Your task to perform on an android device: Add "logitech g903" to the cart on bestbuy.com Image 0: 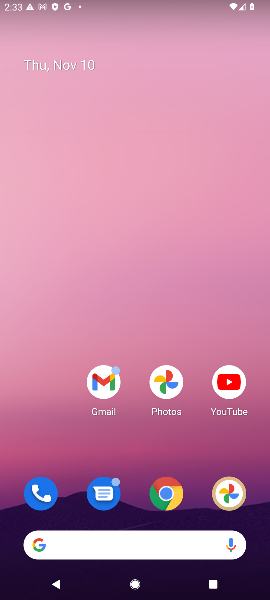
Step 0: drag from (95, 573) to (66, 135)
Your task to perform on an android device: Add "logitech g903" to the cart on bestbuy.com Image 1: 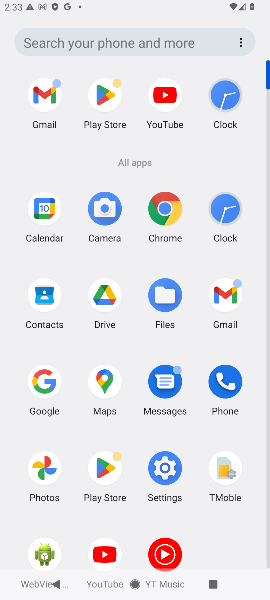
Step 1: click (41, 375)
Your task to perform on an android device: Add "logitech g903" to the cart on bestbuy.com Image 2: 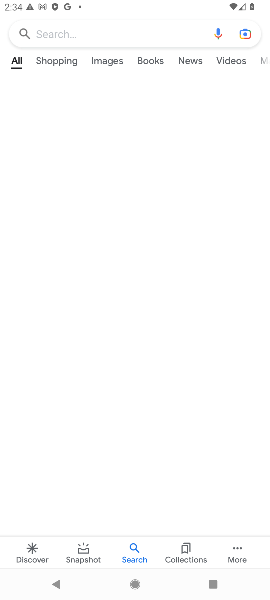
Step 2: click (140, 24)
Your task to perform on an android device: Add "logitech g903" to the cart on bestbuy.com Image 3: 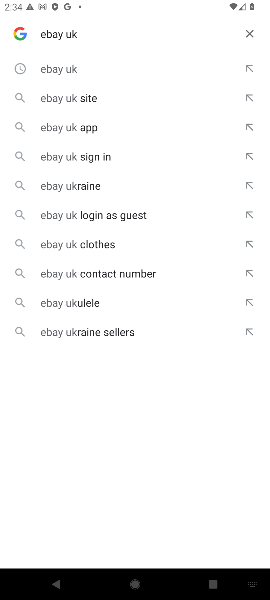
Step 3: type "bestbuy "
Your task to perform on an android device: Add "logitech g903" to the cart on bestbuy.com Image 4: 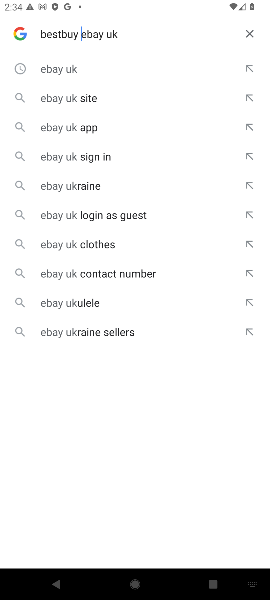
Step 4: click (257, 40)
Your task to perform on an android device: Add "logitech g903" to the cart on bestbuy.com Image 5: 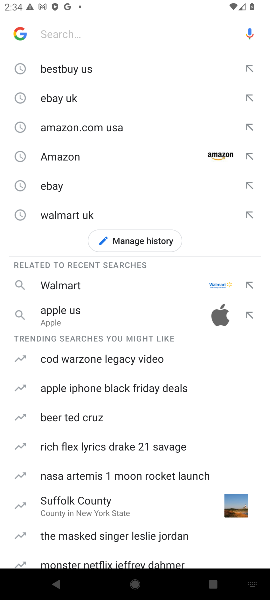
Step 5: click (94, 32)
Your task to perform on an android device: Add "logitech g903" to the cart on bestbuy.com Image 6: 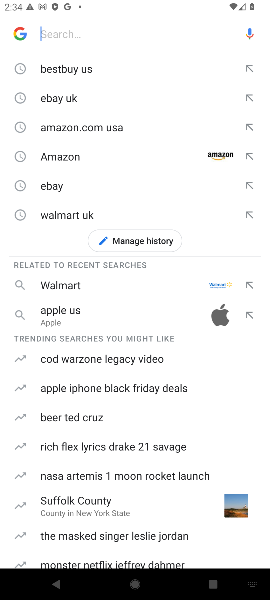
Step 6: type "bestbuy "
Your task to perform on an android device: Add "logitech g903" to the cart on bestbuy.com Image 7: 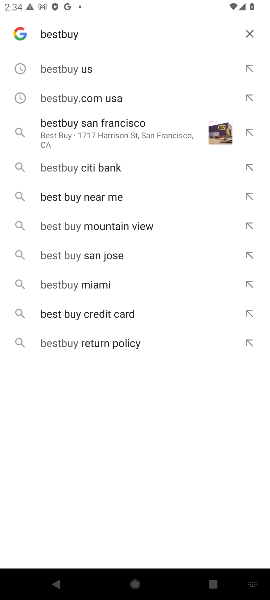
Step 7: click (68, 79)
Your task to perform on an android device: Add "logitech g903" to the cart on bestbuy.com Image 8: 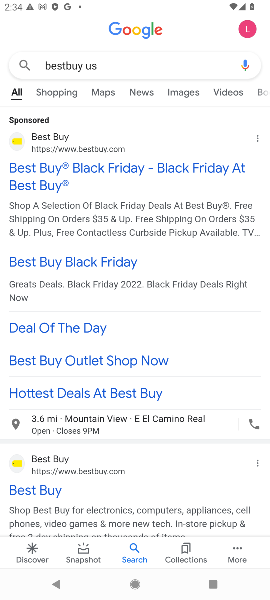
Step 8: click (12, 142)
Your task to perform on an android device: Add "logitech g903" to the cart on bestbuy.com Image 9: 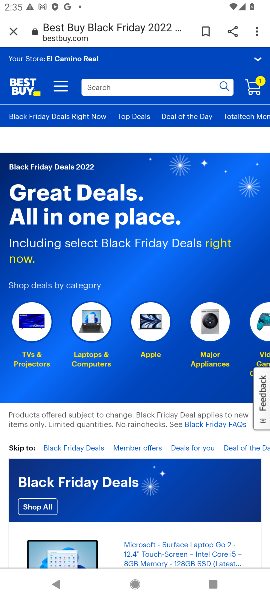
Step 9: click (107, 84)
Your task to perform on an android device: Add "logitech g903" to the cart on bestbuy.com Image 10: 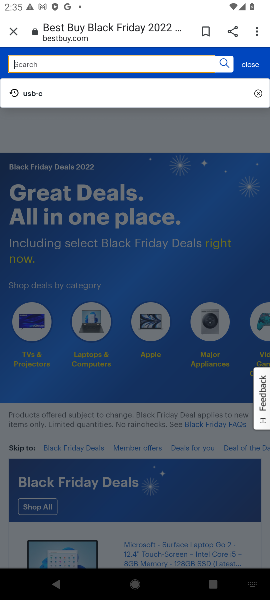
Step 10: click (107, 84)
Your task to perform on an android device: Add "logitech g903" to the cart on bestbuy.com Image 11: 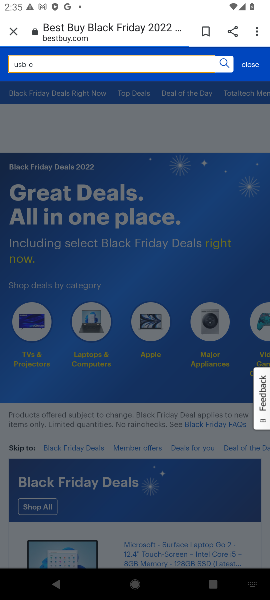
Step 11: click (65, 56)
Your task to perform on an android device: Add "logitech g903" to the cart on bestbuy.com Image 12: 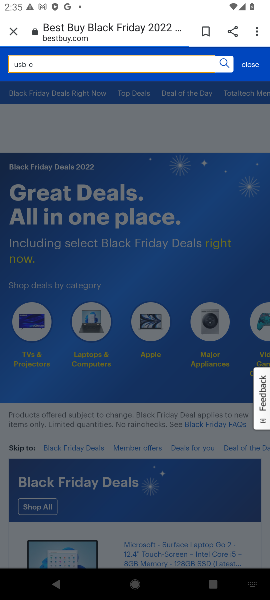
Step 12: click (65, 56)
Your task to perform on an android device: Add "logitech g903" to the cart on bestbuy.com Image 13: 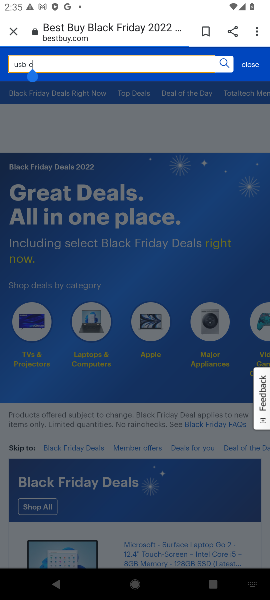
Step 13: click (65, 56)
Your task to perform on an android device: Add "logitech g903" to the cart on bestbuy.com Image 14: 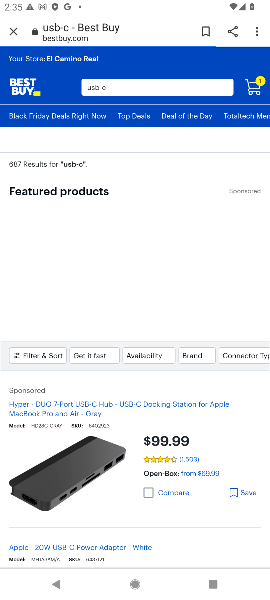
Step 14: click (226, 59)
Your task to perform on an android device: Add "logitech g903" to the cart on bestbuy.com Image 15: 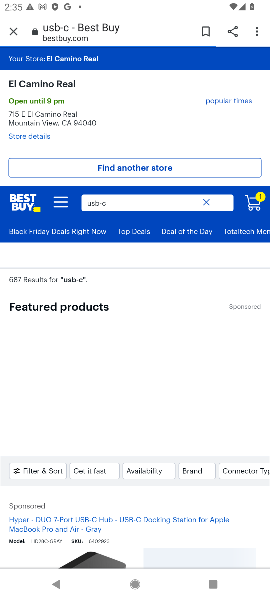
Step 15: click (177, 83)
Your task to perform on an android device: Add "logitech g903" to the cart on bestbuy.com Image 16: 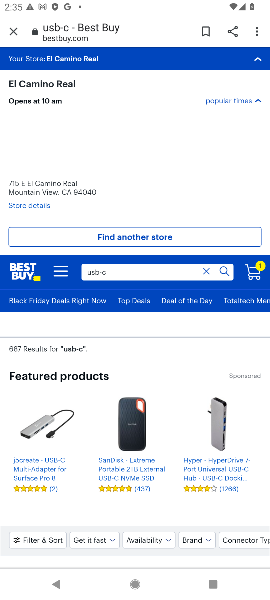
Step 16: type "logitech g903 "
Your task to perform on an android device: Add "logitech g903" to the cart on bestbuy.com Image 17: 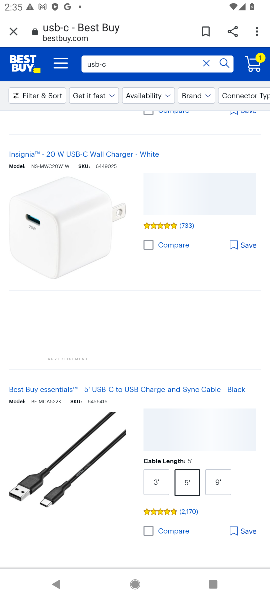
Step 17: click (203, 61)
Your task to perform on an android device: Add "logitech g903" to the cart on bestbuy.com Image 18: 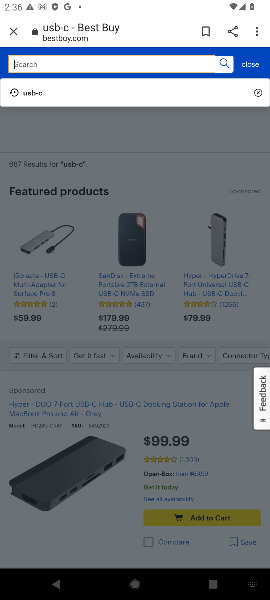
Step 18: click (83, 62)
Your task to perform on an android device: Add "logitech g903" to the cart on bestbuy.com Image 19: 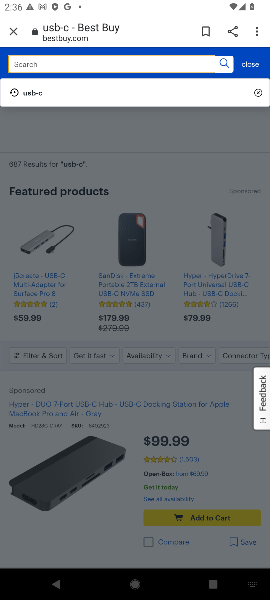
Step 19: type "logitech g903 "
Your task to perform on an android device: Add "logitech g903" to the cart on bestbuy.com Image 20: 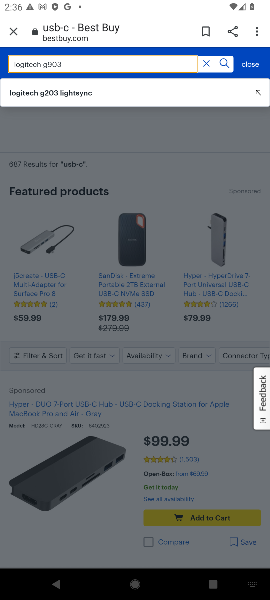
Step 20: click (78, 98)
Your task to perform on an android device: Add "logitech g903" to the cart on bestbuy.com Image 21: 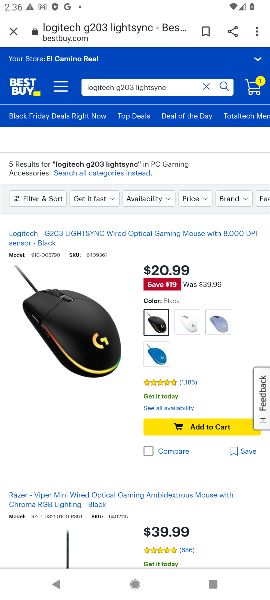
Step 21: click (204, 423)
Your task to perform on an android device: Add "logitech g903" to the cart on bestbuy.com Image 22: 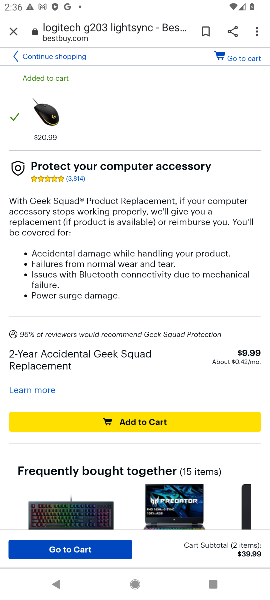
Step 22: click (202, 413)
Your task to perform on an android device: Add "logitech g903" to the cart on bestbuy.com Image 23: 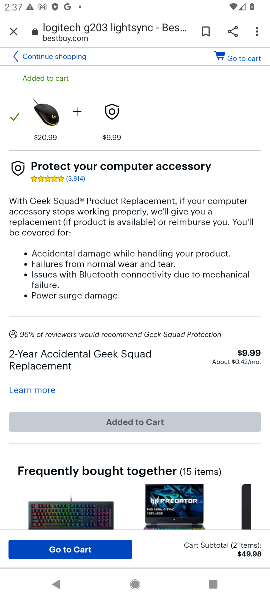
Step 23: task complete